Your task to perform on an android device: change notifications settings Image 0: 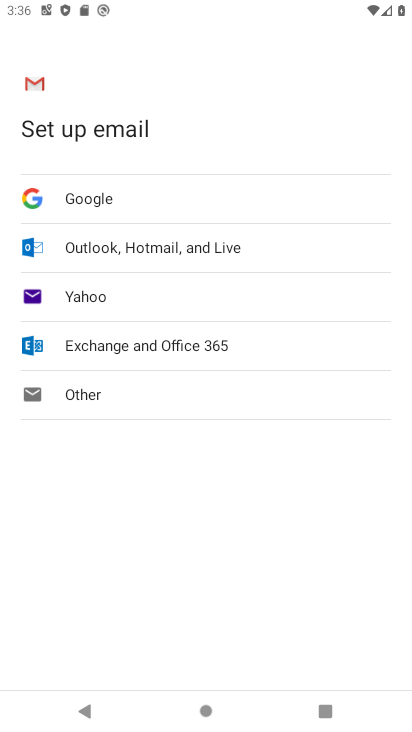
Step 0: press home button
Your task to perform on an android device: change notifications settings Image 1: 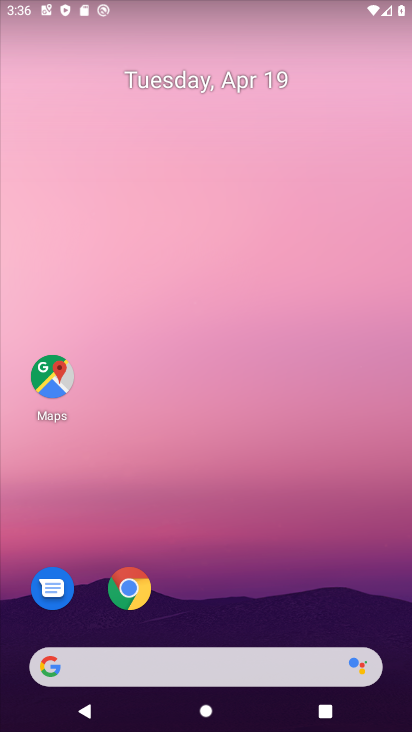
Step 1: drag from (212, 615) to (182, 136)
Your task to perform on an android device: change notifications settings Image 2: 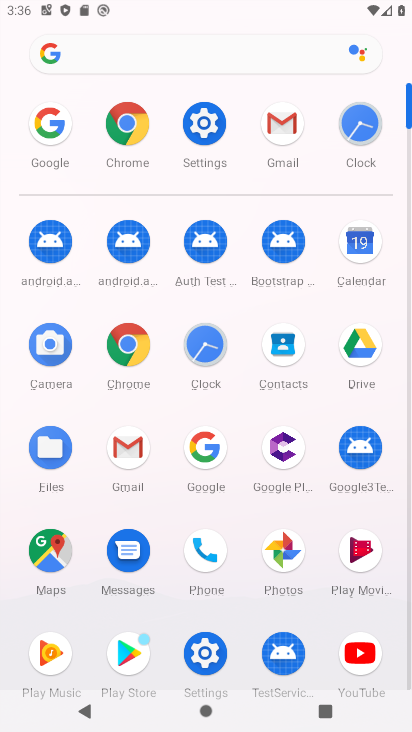
Step 2: click (215, 125)
Your task to perform on an android device: change notifications settings Image 3: 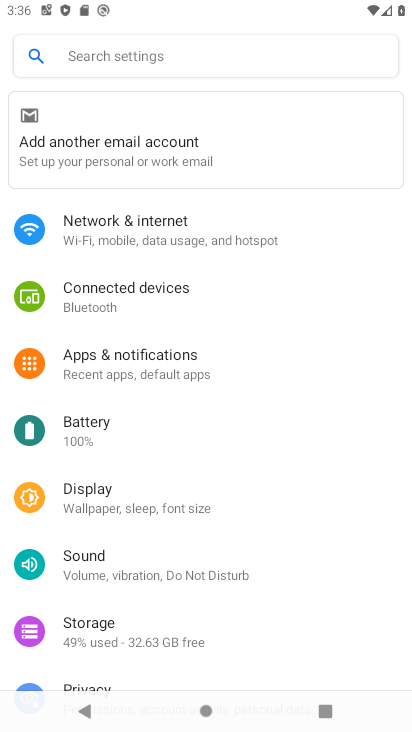
Step 3: click (157, 358)
Your task to perform on an android device: change notifications settings Image 4: 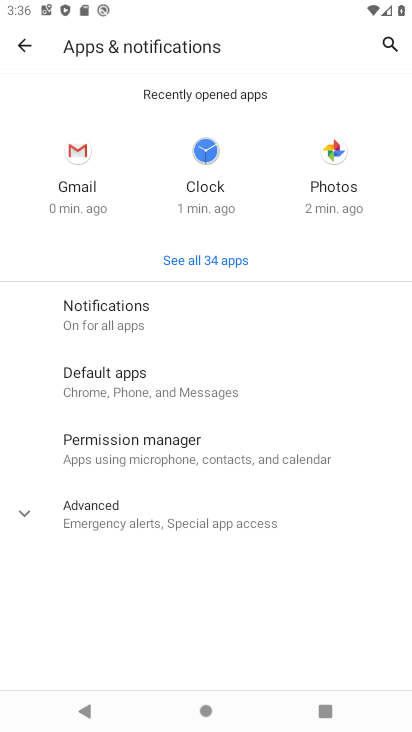
Step 4: click (145, 327)
Your task to perform on an android device: change notifications settings Image 5: 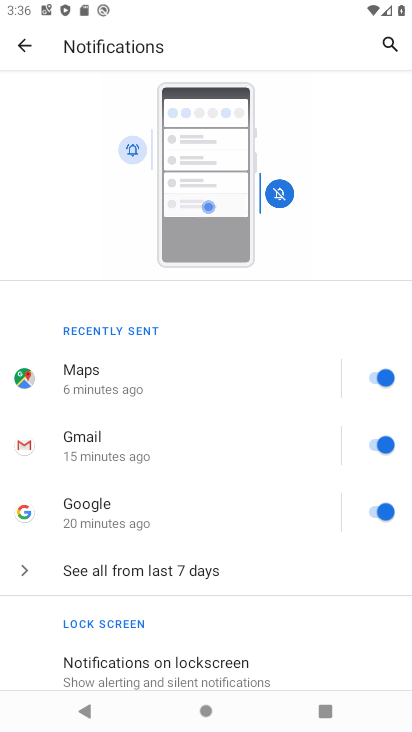
Step 5: click (373, 378)
Your task to perform on an android device: change notifications settings Image 6: 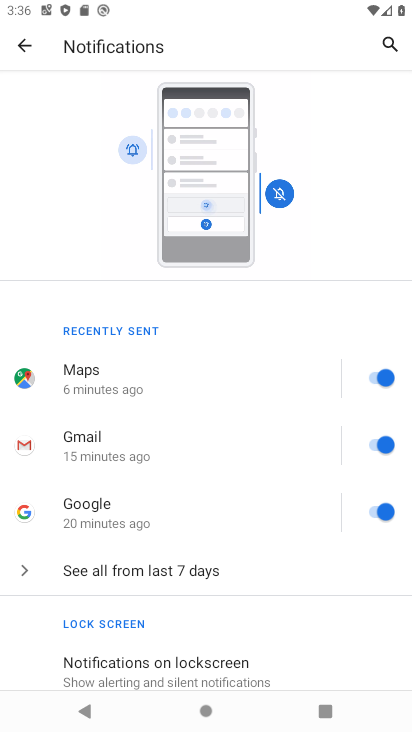
Step 6: click (386, 447)
Your task to perform on an android device: change notifications settings Image 7: 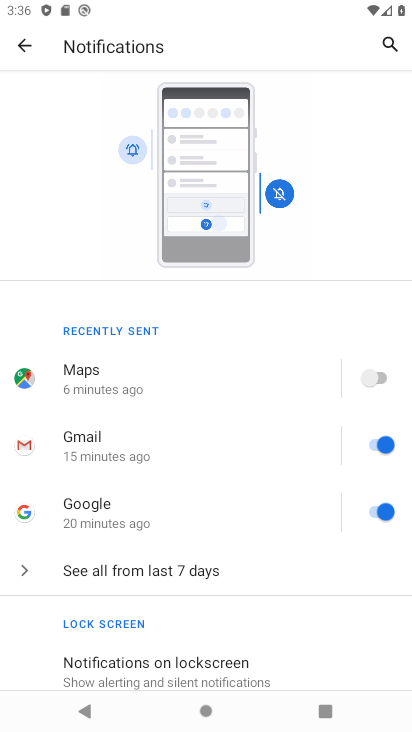
Step 7: click (388, 513)
Your task to perform on an android device: change notifications settings Image 8: 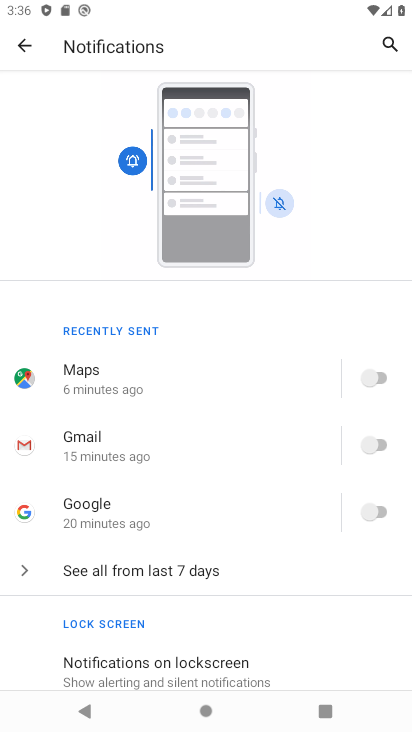
Step 8: task complete